Your task to perform on an android device: turn on bluetooth scan Image 0: 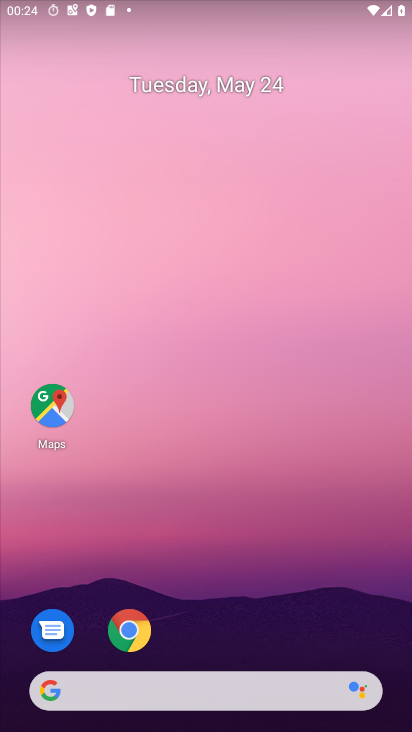
Step 0: drag from (238, 655) to (262, 5)
Your task to perform on an android device: turn on bluetooth scan Image 1: 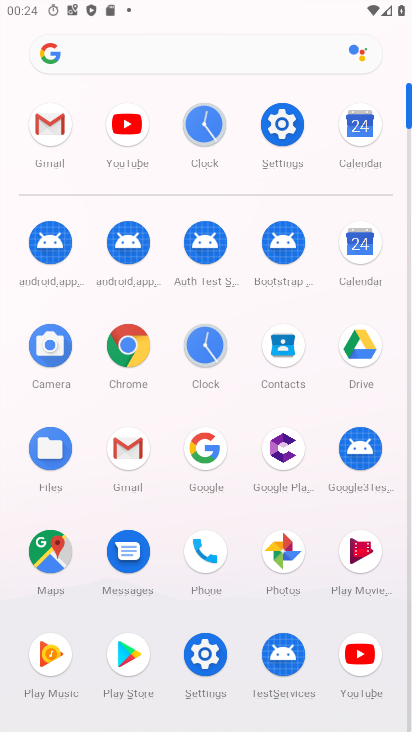
Step 1: click (285, 122)
Your task to perform on an android device: turn on bluetooth scan Image 2: 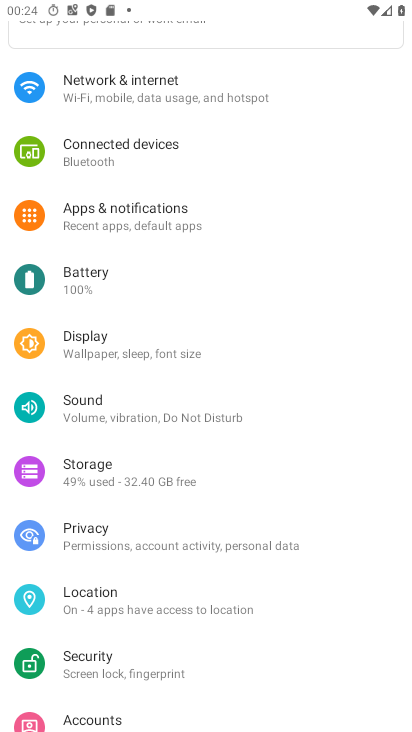
Step 2: click (74, 601)
Your task to perform on an android device: turn on bluetooth scan Image 3: 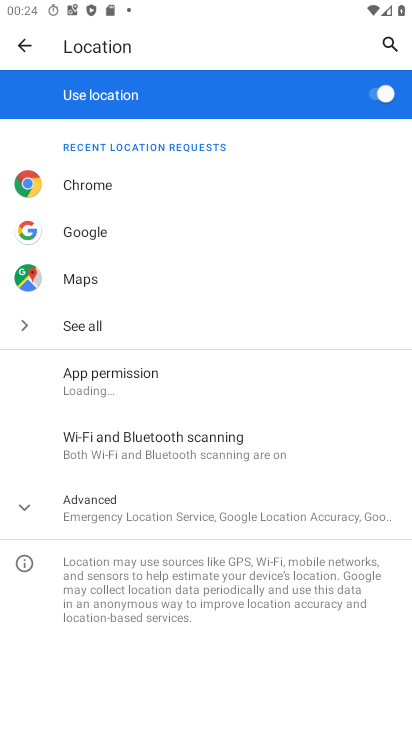
Step 3: click (121, 448)
Your task to perform on an android device: turn on bluetooth scan Image 4: 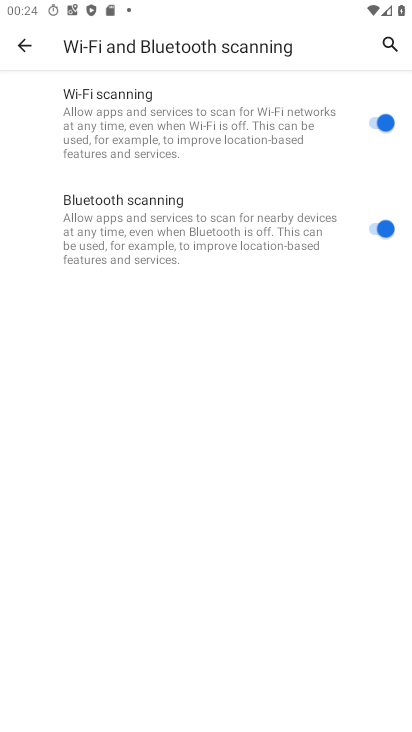
Step 4: task complete